Your task to perform on an android device: change timer sound Image 0: 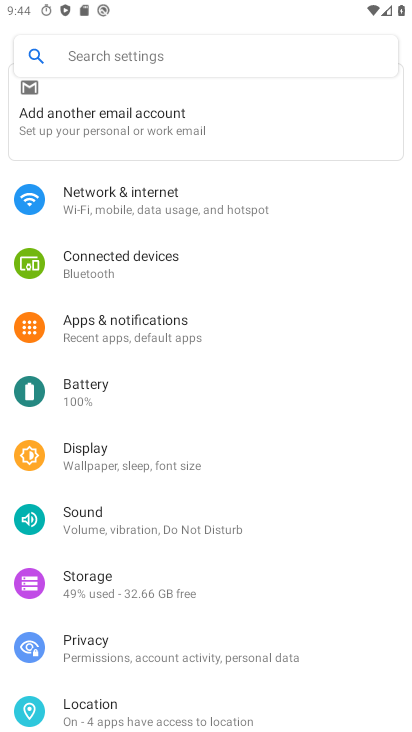
Step 0: press home button
Your task to perform on an android device: change timer sound Image 1: 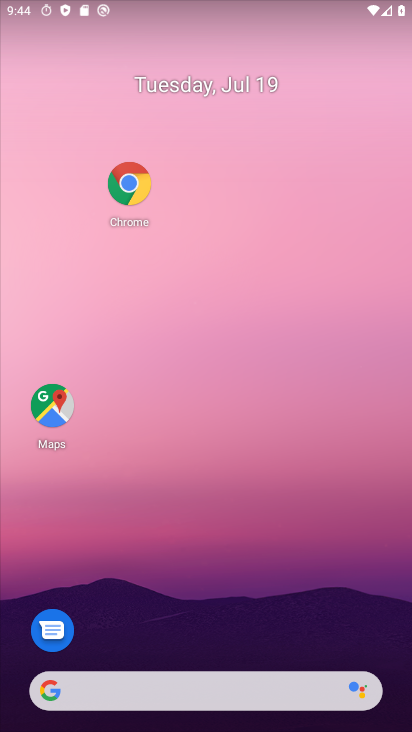
Step 1: drag from (194, 651) to (209, 14)
Your task to perform on an android device: change timer sound Image 2: 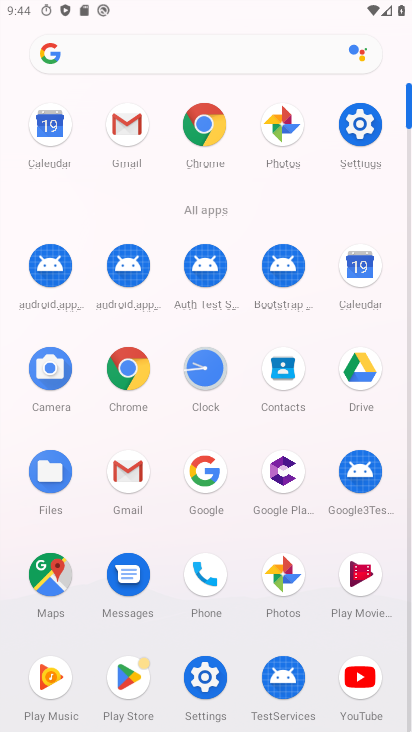
Step 2: click (175, 350)
Your task to perform on an android device: change timer sound Image 3: 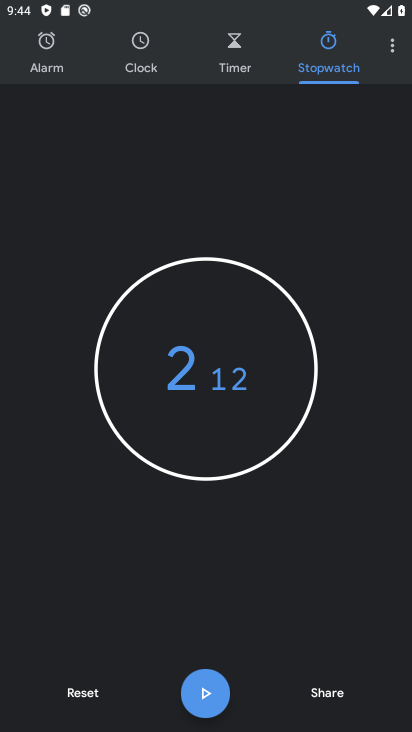
Step 3: click (390, 53)
Your task to perform on an android device: change timer sound Image 4: 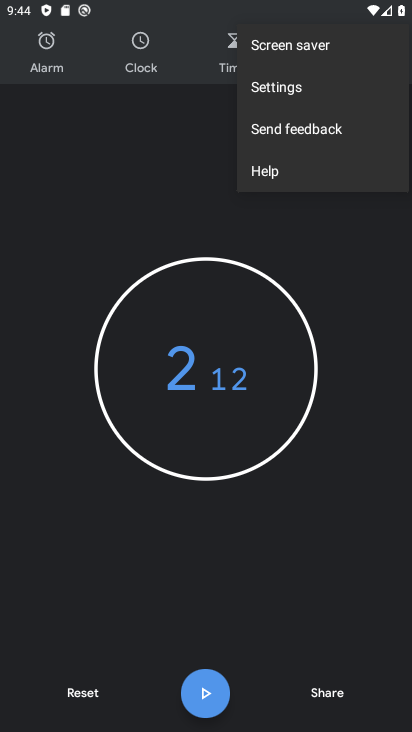
Step 4: click (310, 80)
Your task to perform on an android device: change timer sound Image 5: 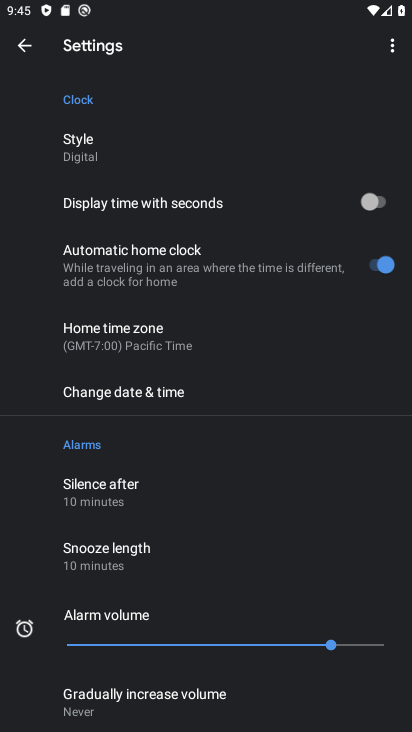
Step 5: drag from (178, 595) to (79, 105)
Your task to perform on an android device: change timer sound Image 6: 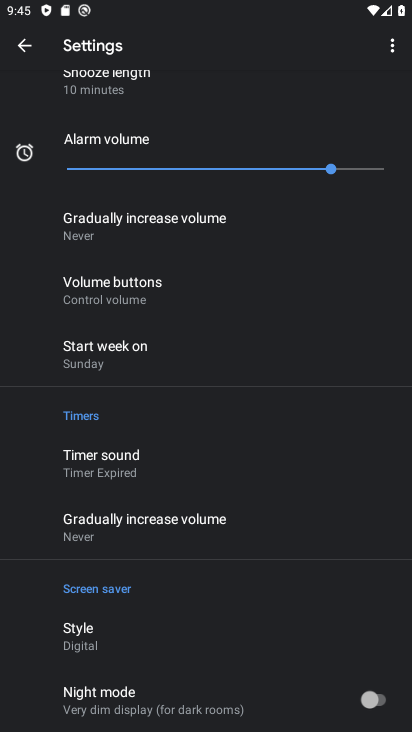
Step 6: click (125, 484)
Your task to perform on an android device: change timer sound Image 7: 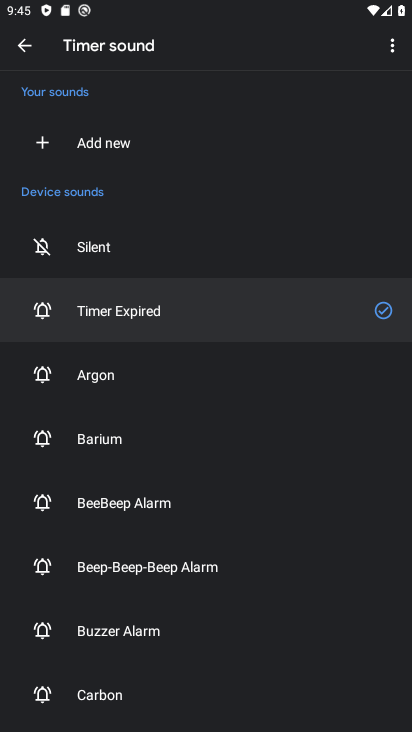
Step 7: click (91, 388)
Your task to perform on an android device: change timer sound Image 8: 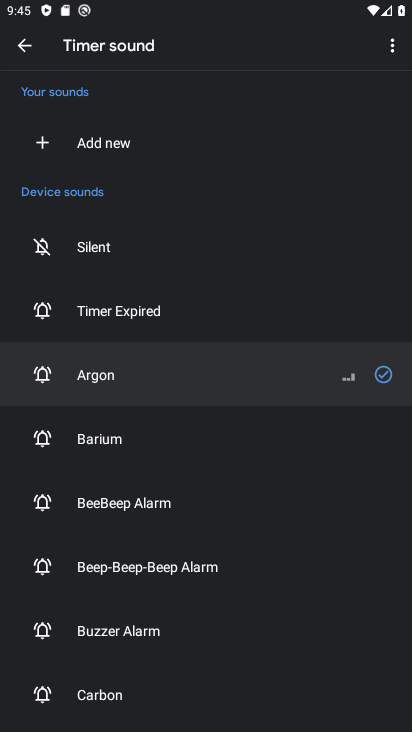
Step 8: task complete